Your task to perform on an android device: Open location settings Image 0: 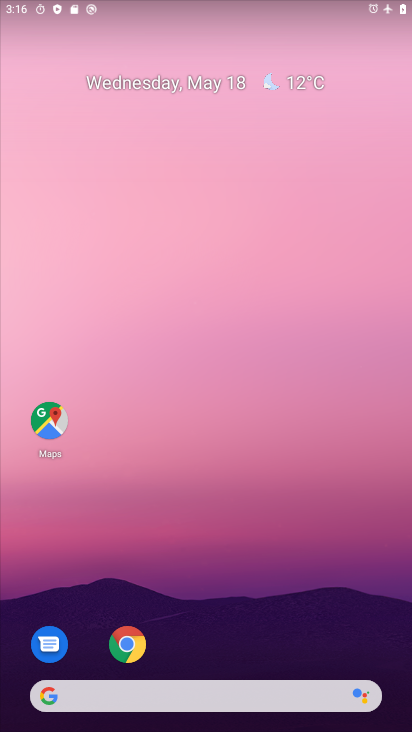
Step 0: drag from (382, 546) to (338, 129)
Your task to perform on an android device: Open location settings Image 1: 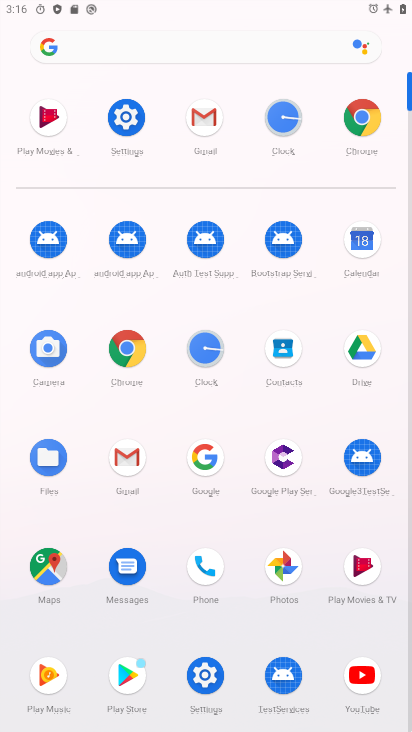
Step 1: click (123, 122)
Your task to perform on an android device: Open location settings Image 2: 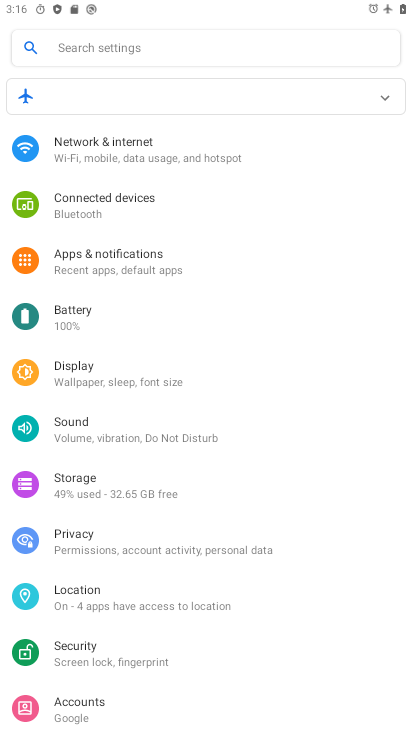
Step 2: click (82, 599)
Your task to perform on an android device: Open location settings Image 3: 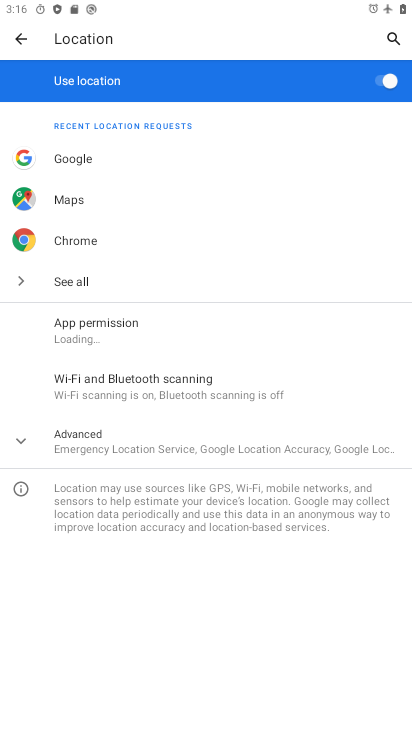
Step 3: click (64, 580)
Your task to perform on an android device: Open location settings Image 4: 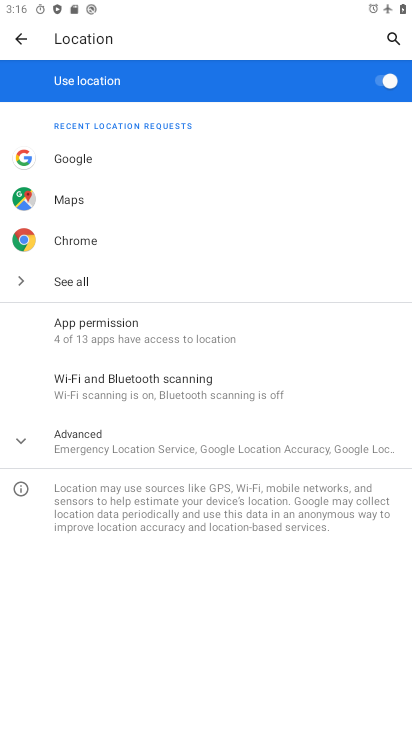
Step 4: task complete